Your task to perform on an android device: turn off picture-in-picture Image 0: 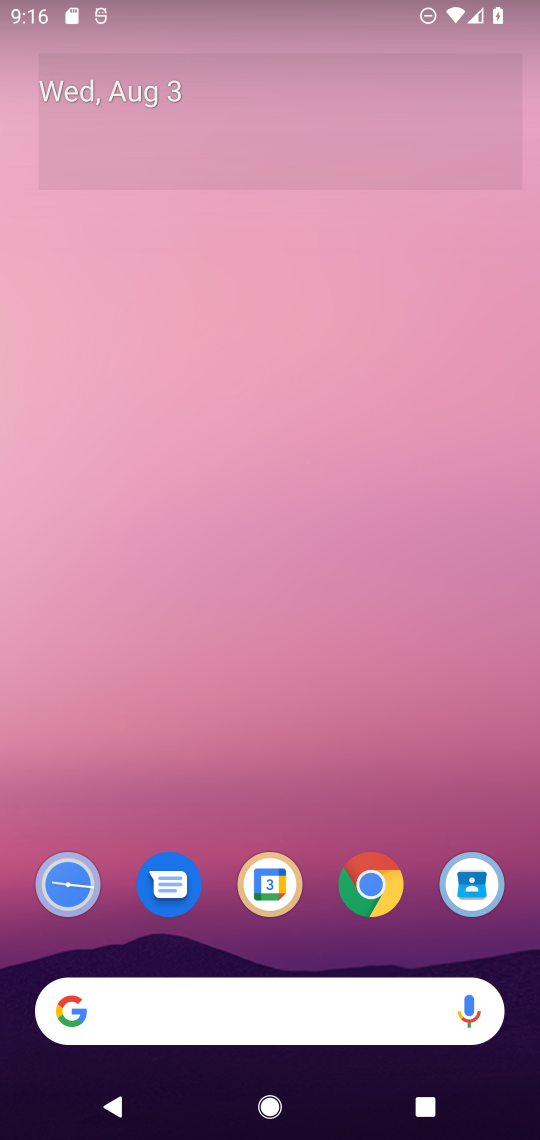
Step 0: click (358, 899)
Your task to perform on an android device: turn off picture-in-picture Image 1: 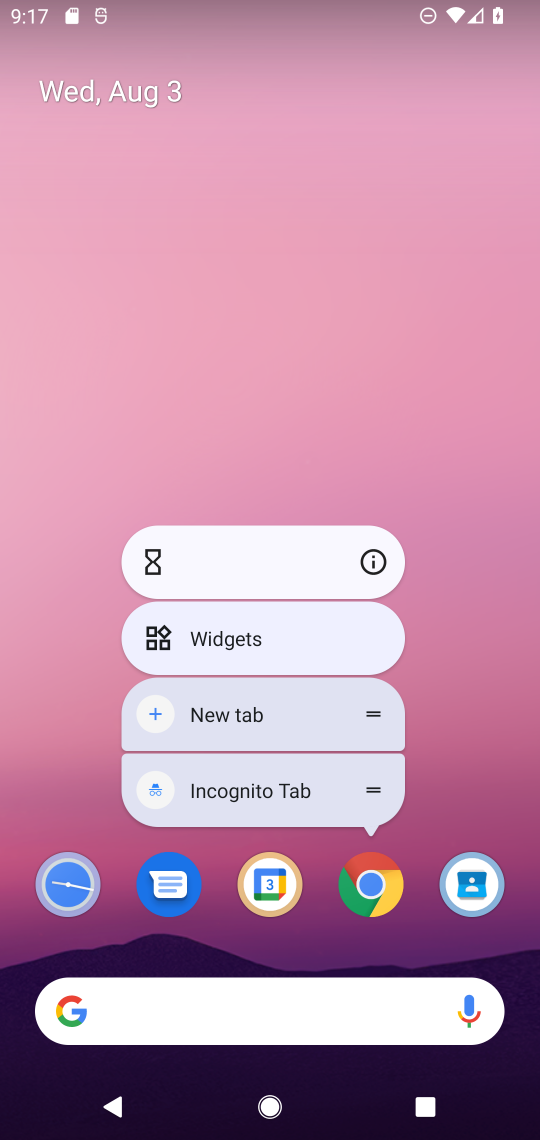
Step 1: click (358, 893)
Your task to perform on an android device: turn off picture-in-picture Image 2: 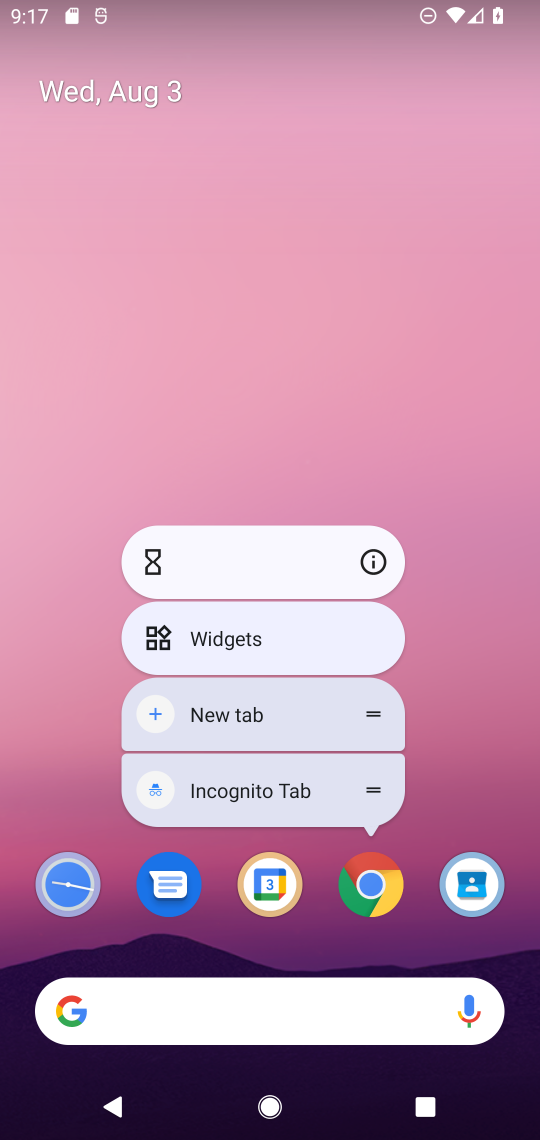
Step 2: task complete